Your task to perform on an android device: Search for the best rated circular saw on Lowes.com Image 0: 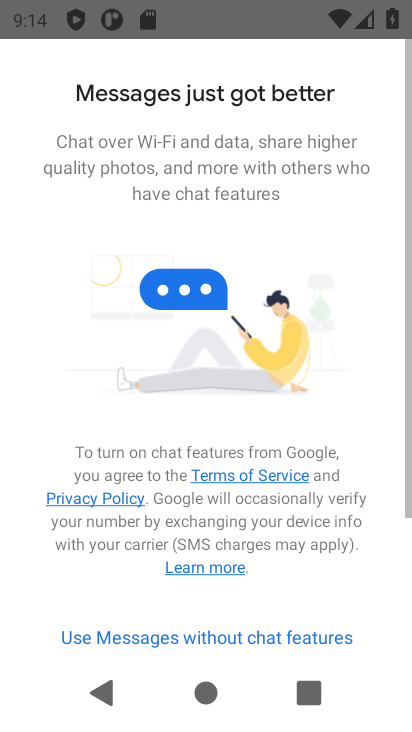
Step 0: press home button
Your task to perform on an android device: Search for the best rated circular saw on Lowes.com Image 1: 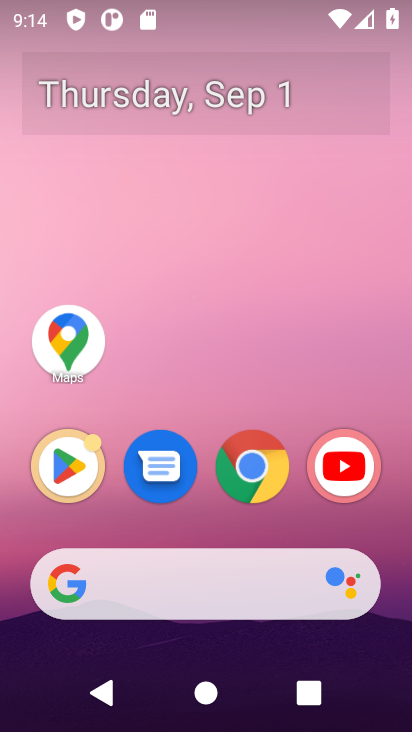
Step 1: drag from (387, 536) to (391, 95)
Your task to perform on an android device: Search for the best rated circular saw on Lowes.com Image 2: 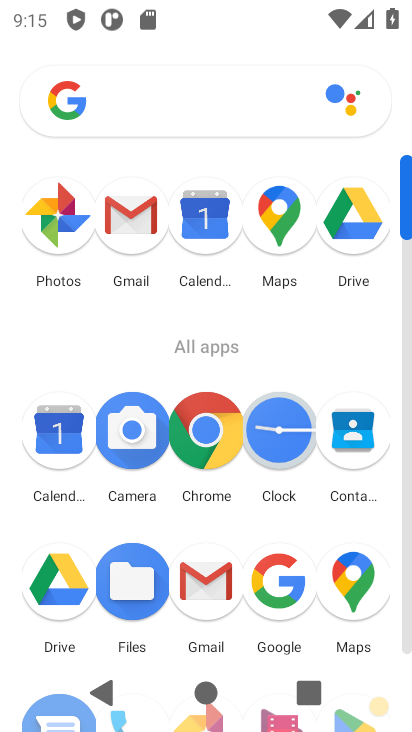
Step 2: click (217, 437)
Your task to perform on an android device: Search for the best rated circular saw on Lowes.com Image 3: 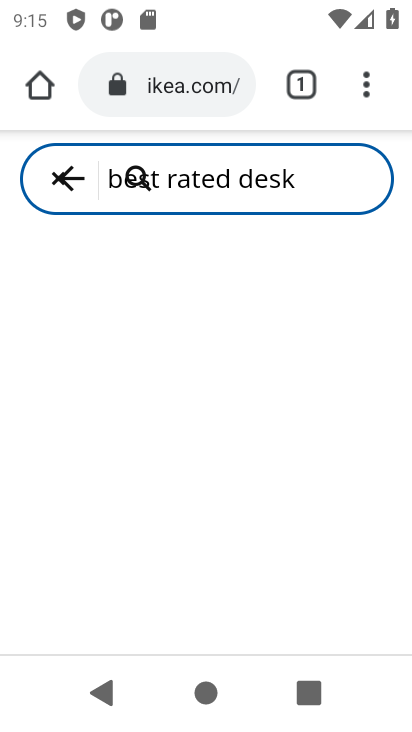
Step 3: click (164, 86)
Your task to perform on an android device: Search for the best rated circular saw on Lowes.com Image 4: 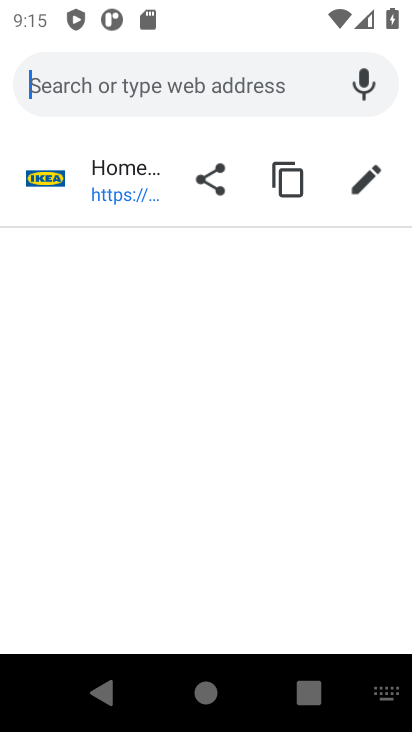
Step 4: press enter
Your task to perform on an android device: Search for the best rated circular saw on Lowes.com Image 5: 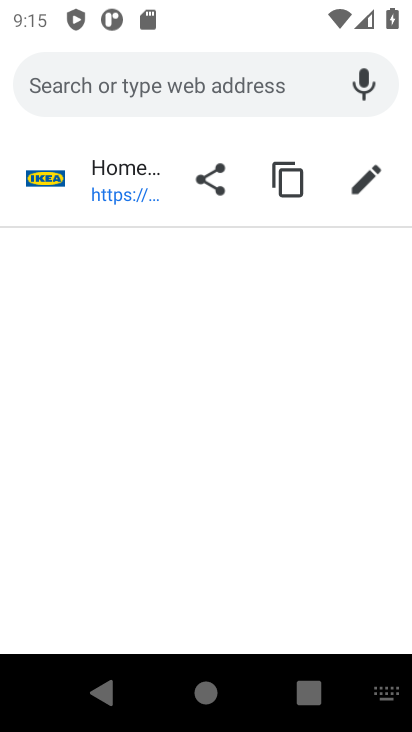
Step 5: type "lowes.com"
Your task to perform on an android device: Search for the best rated circular saw on Lowes.com Image 6: 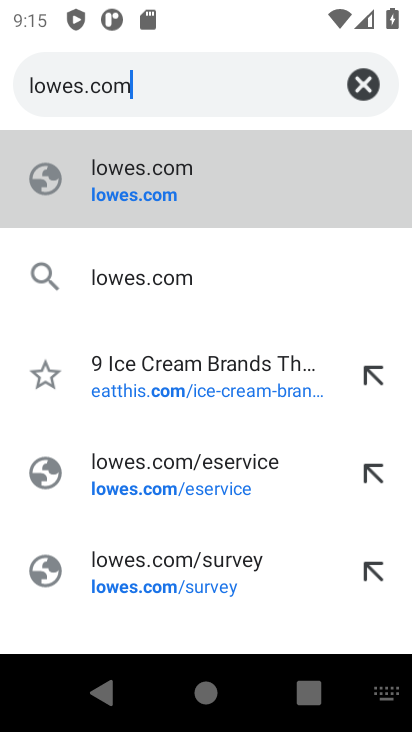
Step 6: click (167, 179)
Your task to perform on an android device: Search for the best rated circular saw on Lowes.com Image 7: 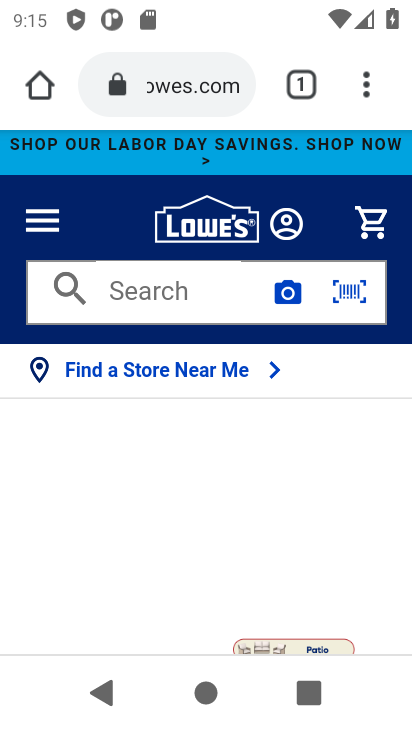
Step 7: click (104, 289)
Your task to perform on an android device: Search for the best rated circular saw on Lowes.com Image 8: 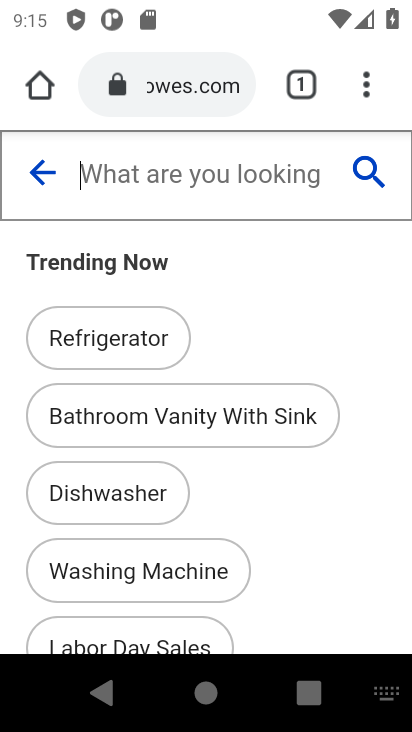
Step 8: press enter
Your task to perform on an android device: Search for the best rated circular saw on Lowes.com Image 9: 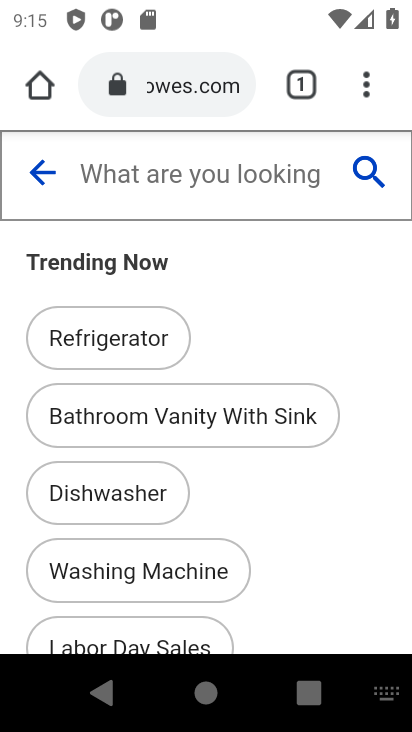
Step 9: type "best rated circular saw"
Your task to perform on an android device: Search for the best rated circular saw on Lowes.com Image 10: 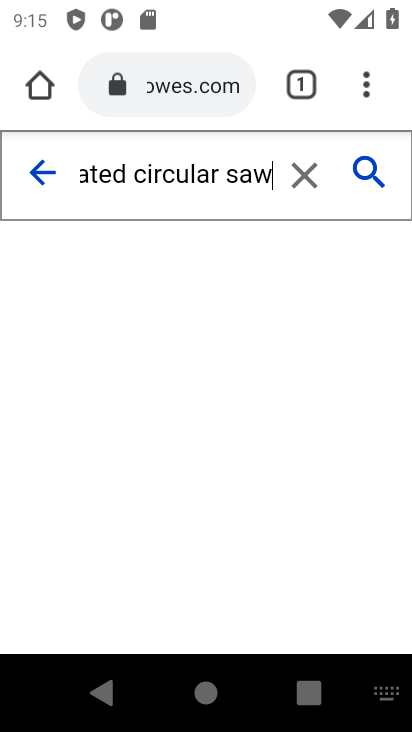
Step 10: click (369, 164)
Your task to perform on an android device: Search for the best rated circular saw on Lowes.com Image 11: 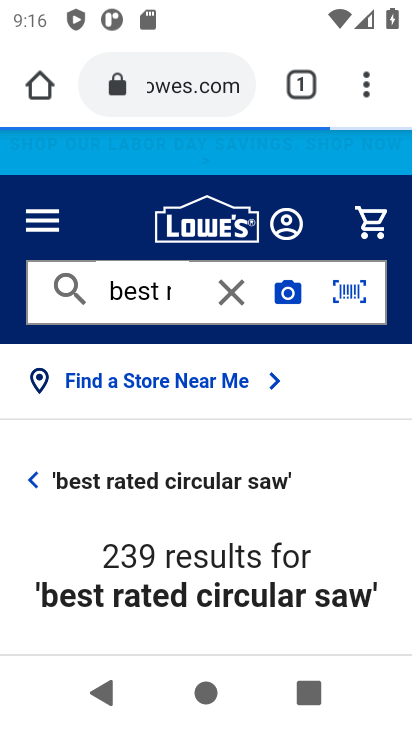
Step 11: task complete